Your task to perform on an android device: What is the recent news? Image 0: 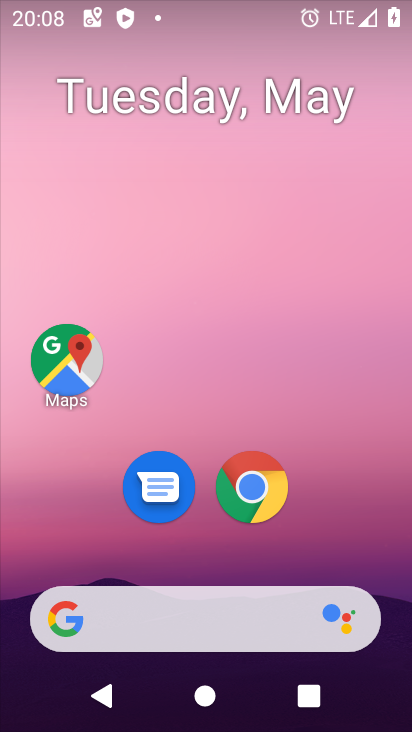
Step 0: drag from (6, 223) to (387, 289)
Your task to perform on an android device: What is the recent news? Image 1: 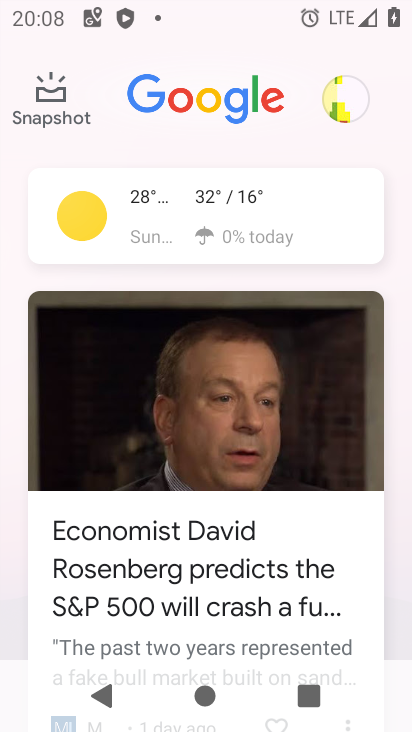
Step 1: task complete